Your task to perform on an android device: toggle sleep mode Image 0: 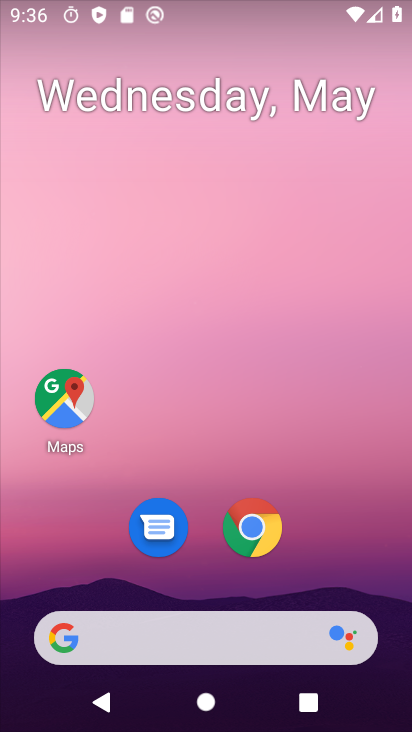
Step 0: drag from (302, 488) to (263, 90)
Your task to perform on an android device: toggle sleep mode Image 1: 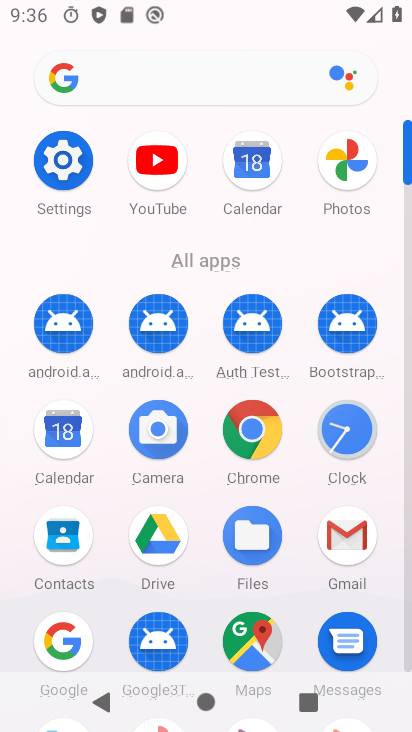
Step 1: click (80, 160)
Your task to perform on an android device: toggle sleep mode Image 2: 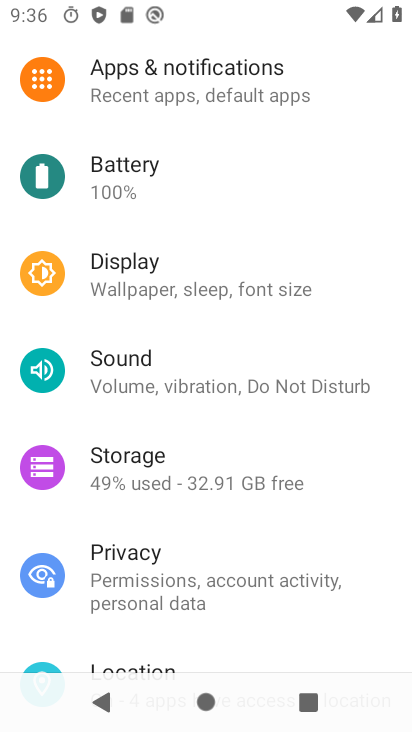
Step 2: drag from (242, 205) to (228, 460)
Your task to perform on an android device: toggle sleep mode Image 3: 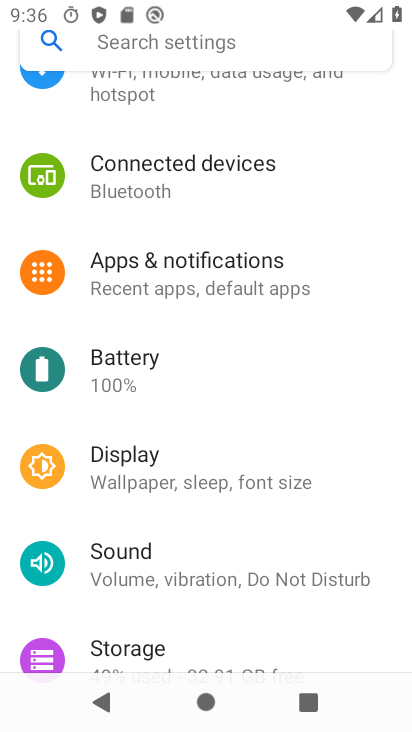
Step 3: click (211, 476)
Your task to perform on an android device: toggle sleep mode Image 4: 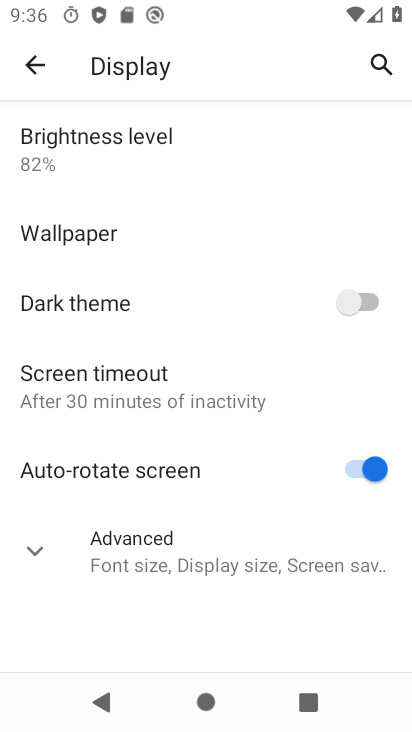
Step 4: click (185, 398)
Your task to perform on an android device: toggle sleep mode Image 5: 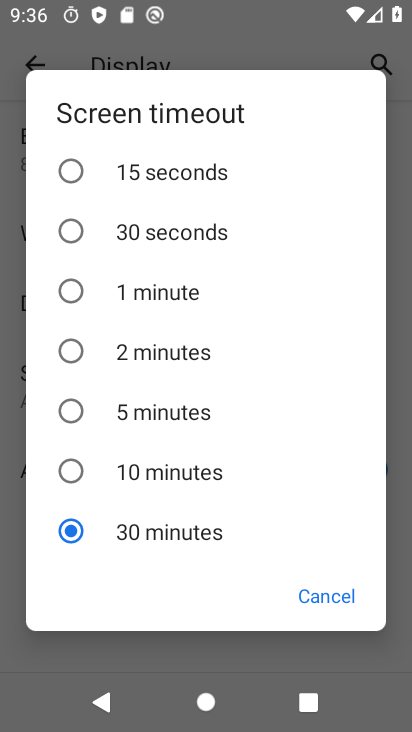
Step 5: click (193, 478)
Your task to perform on an android device: toggle sleep mode Image 6: 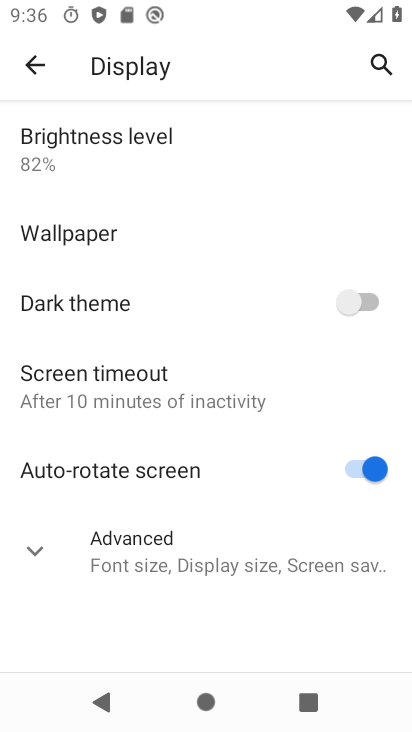
Step 6: task complete